Your task to perform on an android device: Do I have any events this weekend? Image 0: 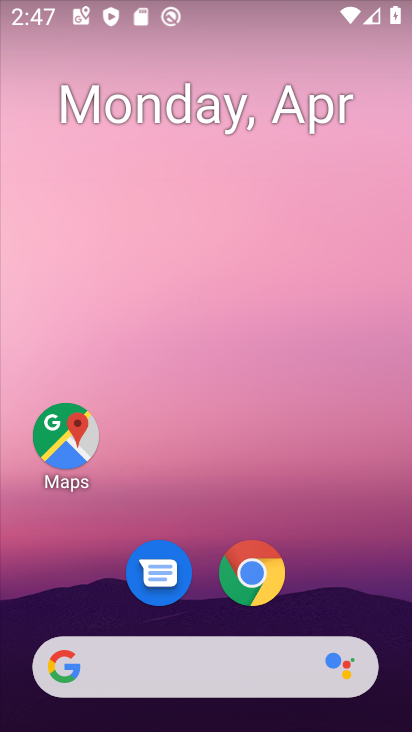
Step 0: drag from (356, 567) to (400, 73)
Your task to perform on an android device: Do I have any events this weekend? Image 1: 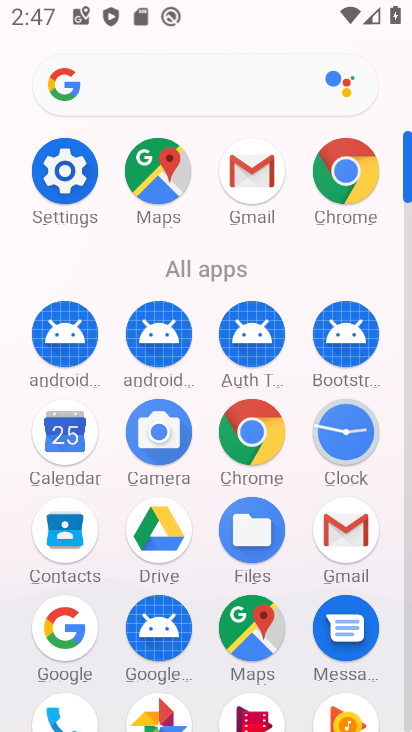
Step 1: click (68, 440)
Your task to perform on an android device: Do I have any events this weekend? Image 2: 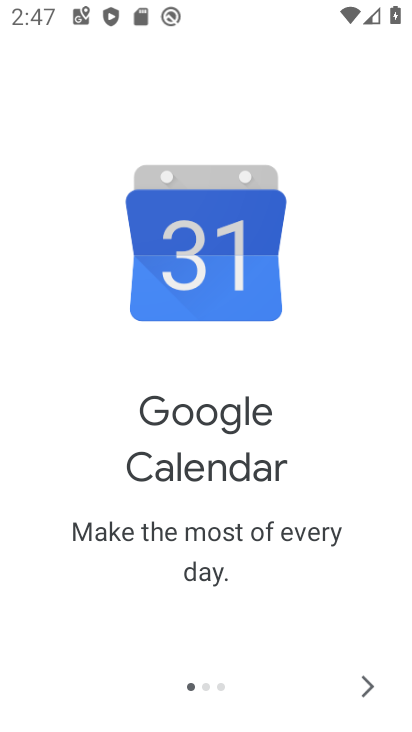
Step 2: click (366, 684)
Your task to perform on an android device: Do I have any events this weekend? Image 3: 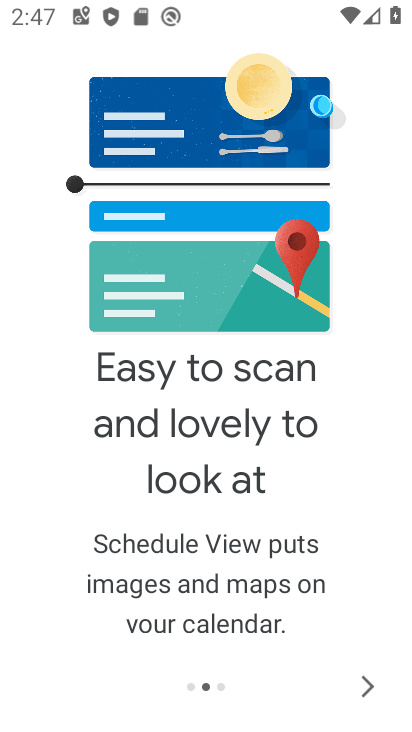
Step 3: click (366, 684)
Your task to perform on an android device: Do I have any events this weekend? Image 4: 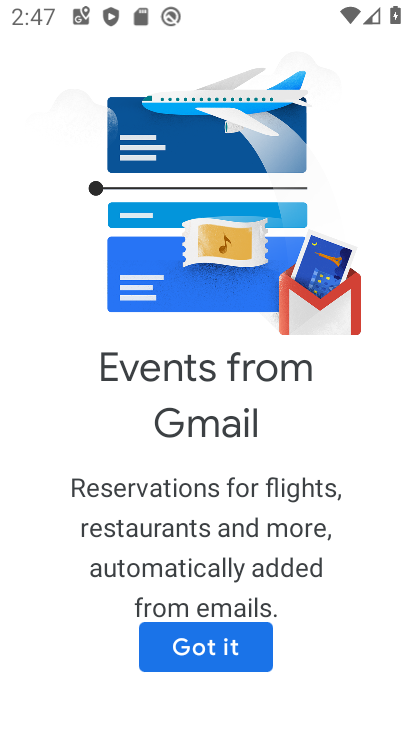
Step 4: click (220, 654)
Your task to perform on an android device: Do I have any events this weekend? Image 5: 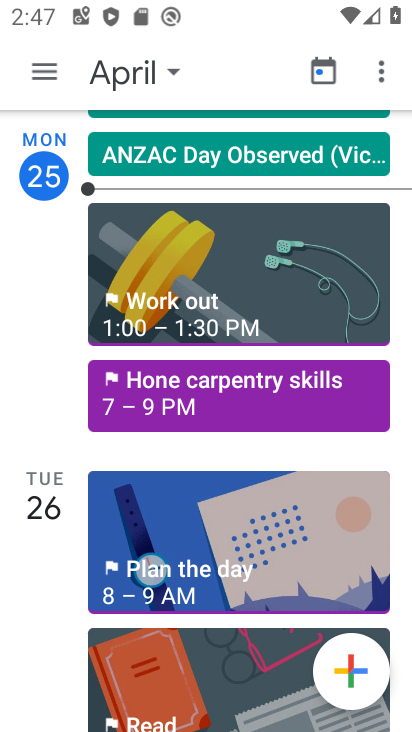
Step 5: drag from (249, 658) to (273, 350)
Your task to perform on an android device: Do I have any events this weekend? Image 6: 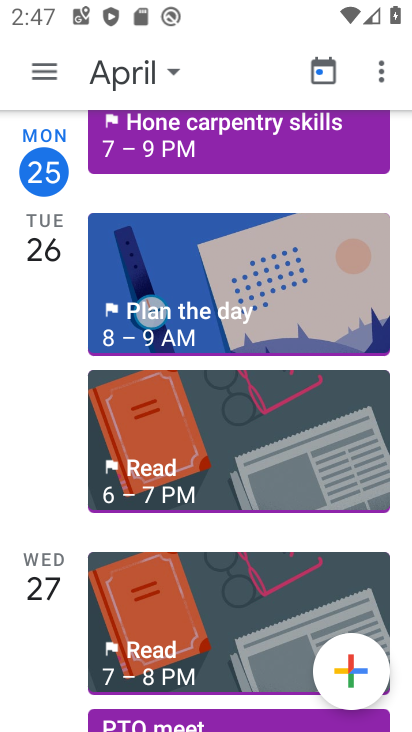
Step 6: drag from (258, 626) to (298, 340)
Your task to perform on an android device: Do I have any events this weekend? Image 7: 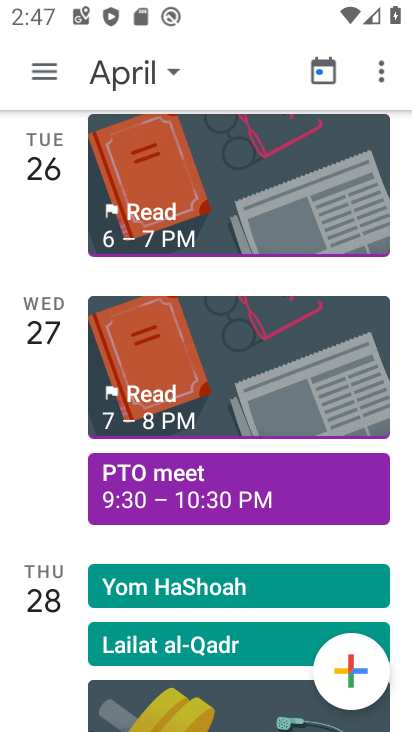
Step 7: drag from (279, 678) to (308, 255)
Your task to perform on an android device: Do I have any events this weekend? Image 8: 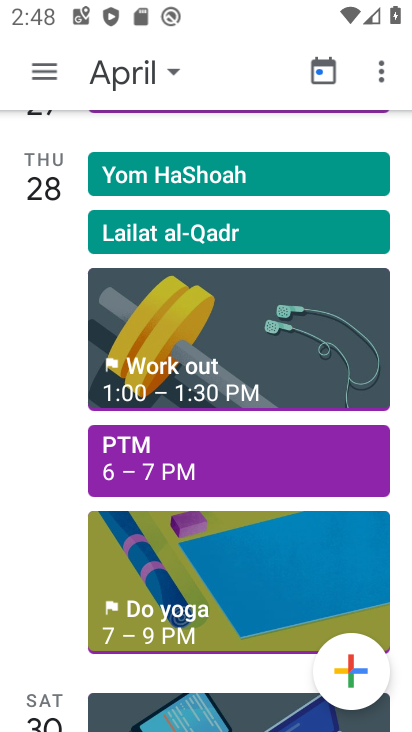
Step 8: drag from (242, 635) to (284, 146)
Your task to perform on an android device: Do I have any events this weekend? Image 9: 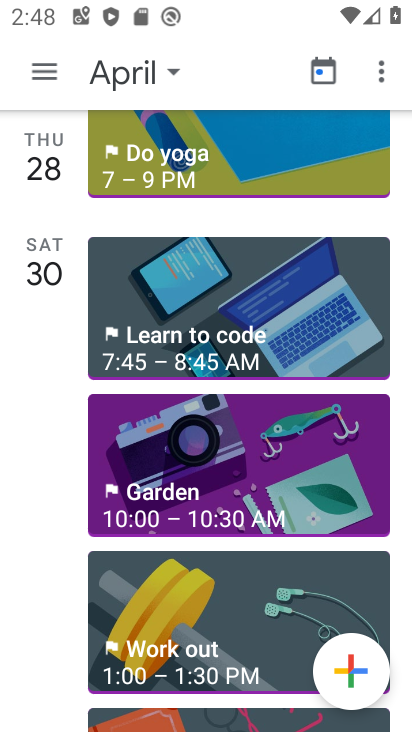
Step 9: click (221, 649)
Your task to perform on an android device: Do I have any events this weekend? Image 10: 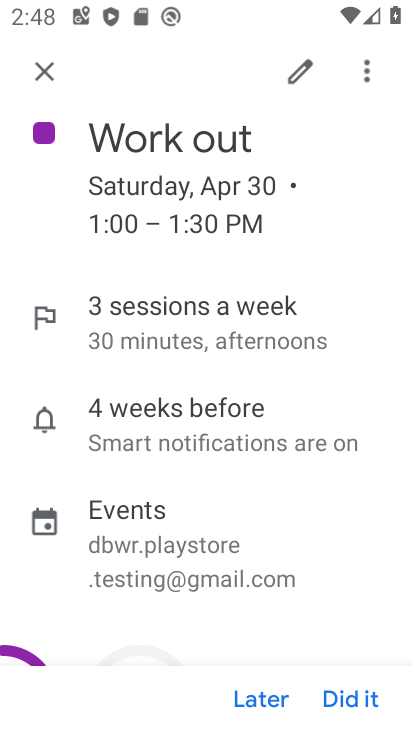
Step 10: task complete